Your task to perform on an android device: turn pop-ups off in chrome Image 0: 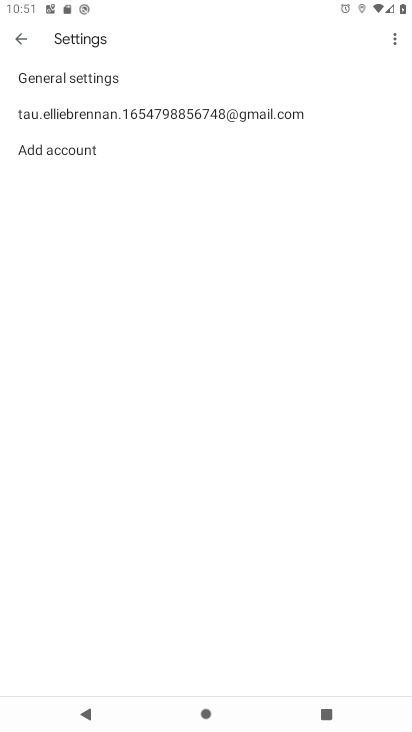
Step 0: press home button
Your task to perform on an android device: turn pop-ups off in chrome Image 1: 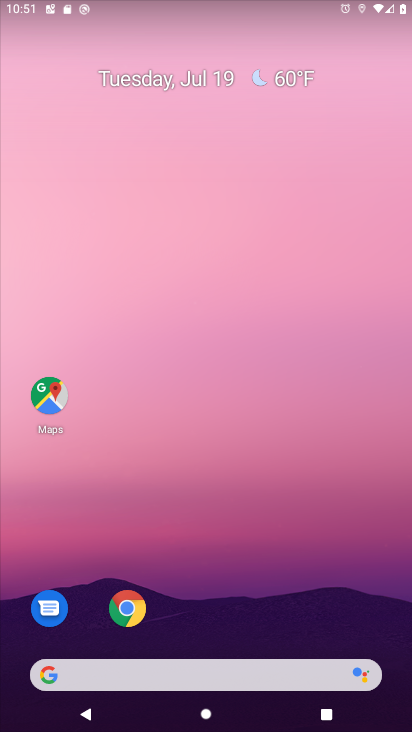
Step 1: drag from (195, 637) to (81, 6)
Your task to perform on an android device: turn pop-ups off in chrome Image 2: 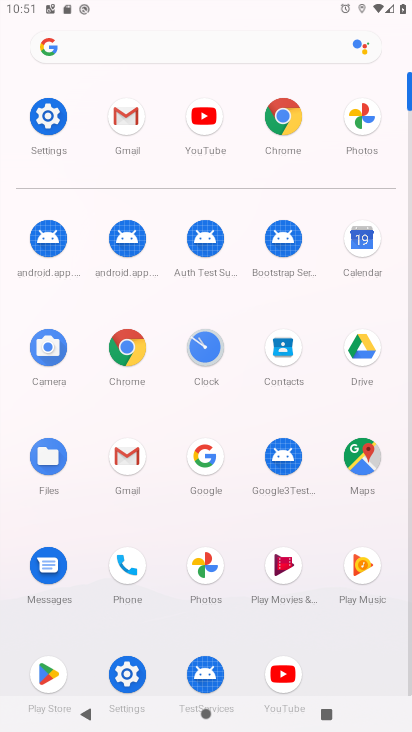
Step 2: click (139, 345)
Your task to perform on an android device: turn pop-ups off in chrome Image 3: 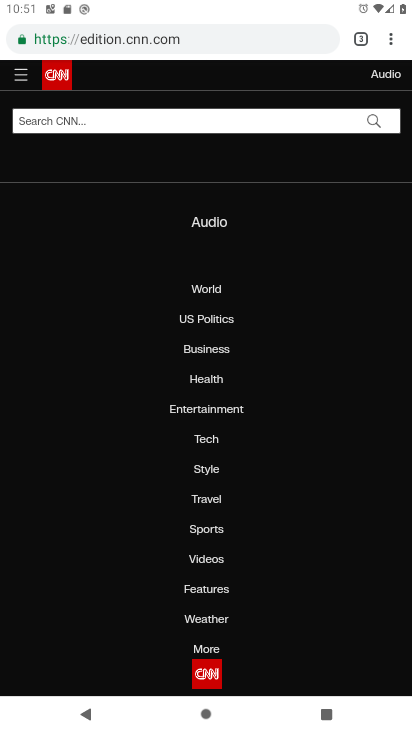
Step 3: click (394, 42)
Your task to perform on an android device: turn pop-ups off in chrome Image 4: 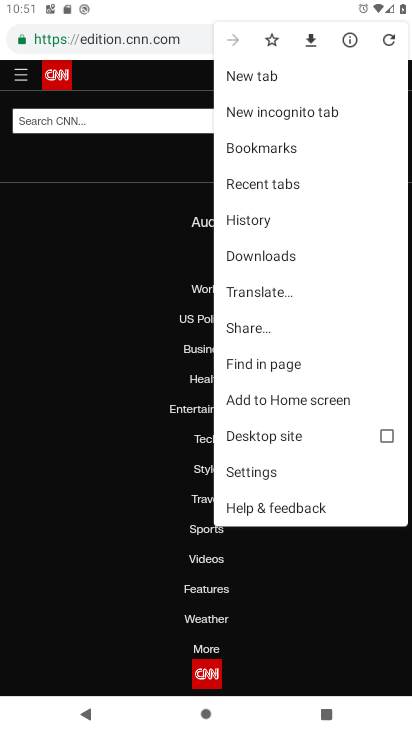
Step 4: click (247, 466)
Your task to perform on an android device: turn pop-ups off in chrome Image 5: 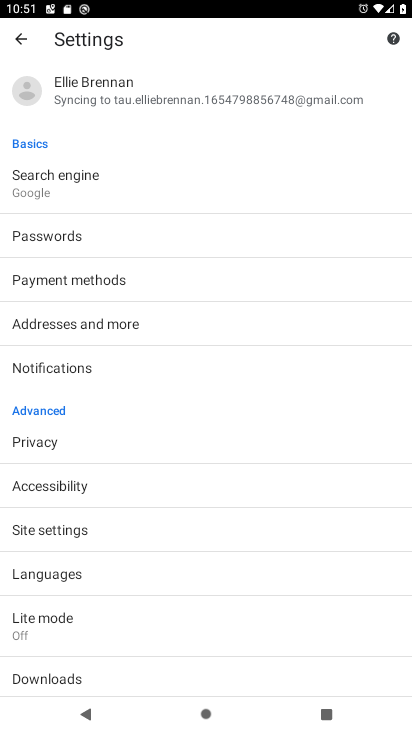
Step 5: click (26, 531)
Your task to perform on an android device: turn pop-ups off in chrome Image 6: 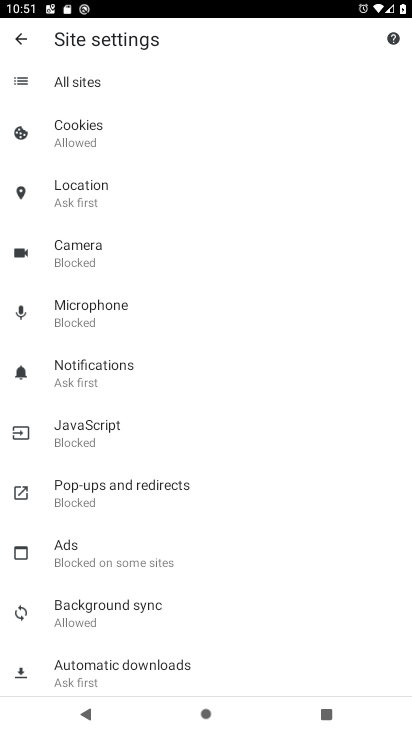
Step 6: click (71, 511)
Your task to perform on an android device: turn pop-ups off in chrome Image 7: 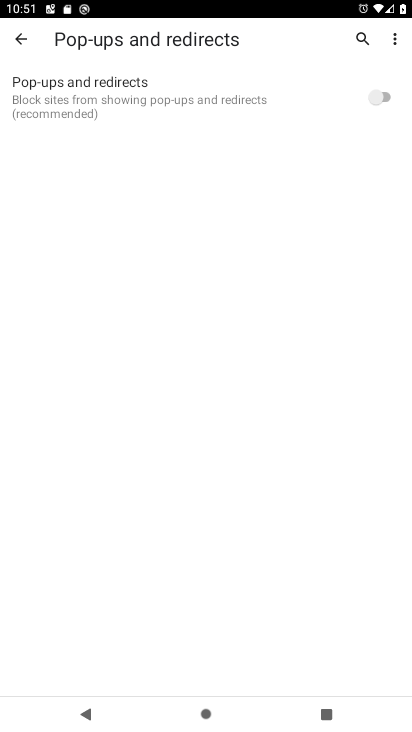
Step 7: task complete